Your task to perform on an android device: Open settings on Google Maps Image 0: 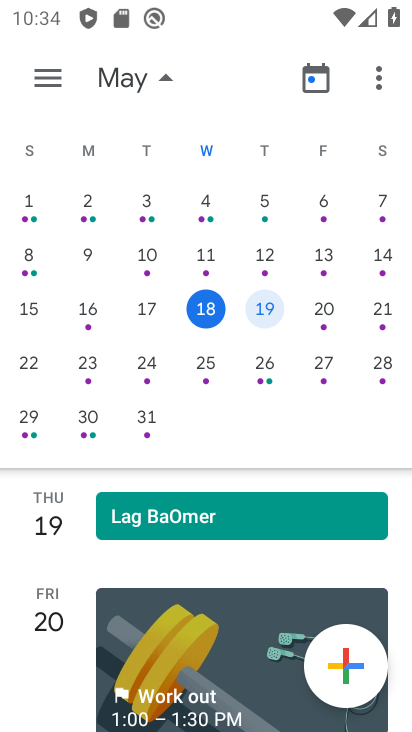
Step 0: press home button
Your task to perform on an android device: Open settings on Google Maps Image 1: 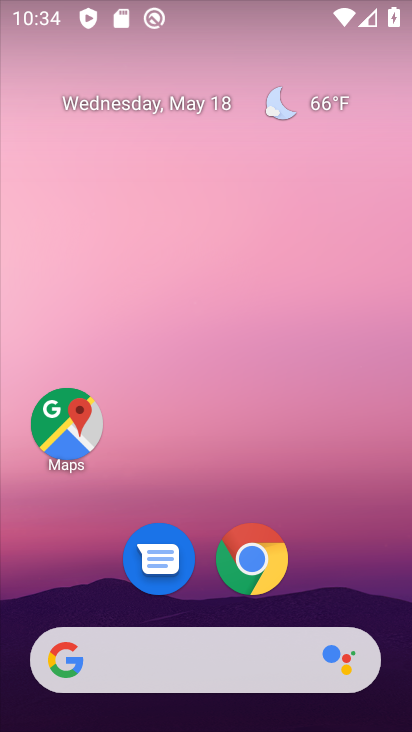
Step 1: click (55, 425)
Your task to perform on an android device: Open settings on Google Maps Image 2: 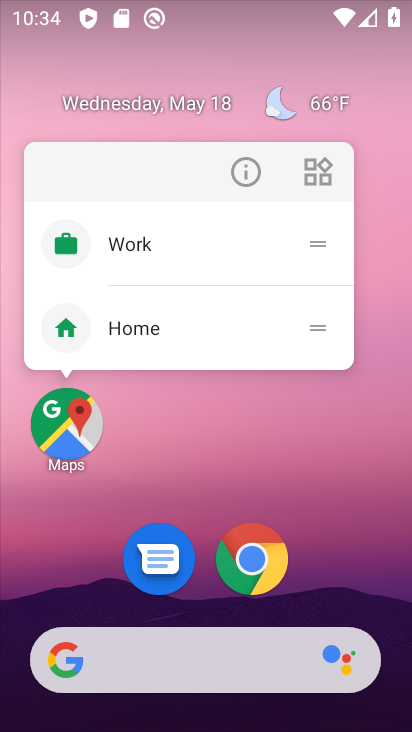
Step 2: click (68, 426)
Your task to perform on an android device: Open settings on Google Maps Image 3: 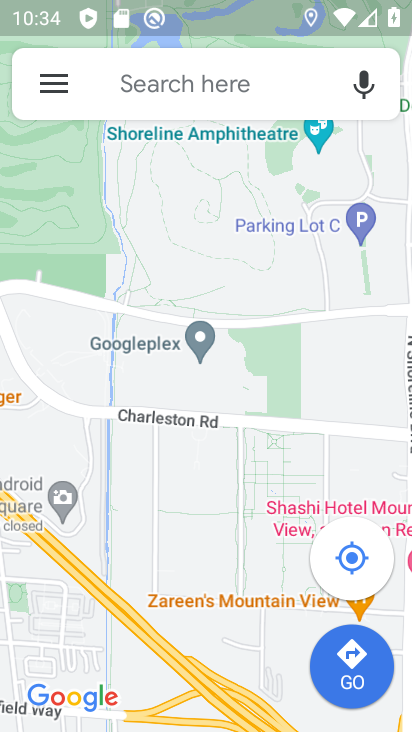
Step 3: click (54, 84)
Your task to perform on an android device: Open settings on Google Maps Image 4: 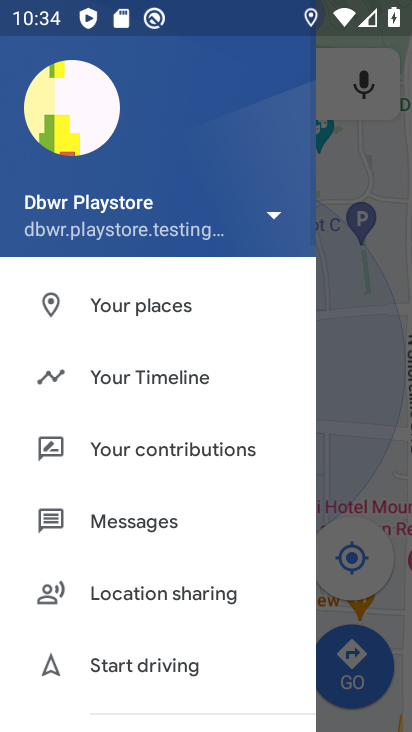
Step 4: drag from (141, 617) to (175, 275)
Your task to perform on an android device: Open settings on Google Maps Image 5: 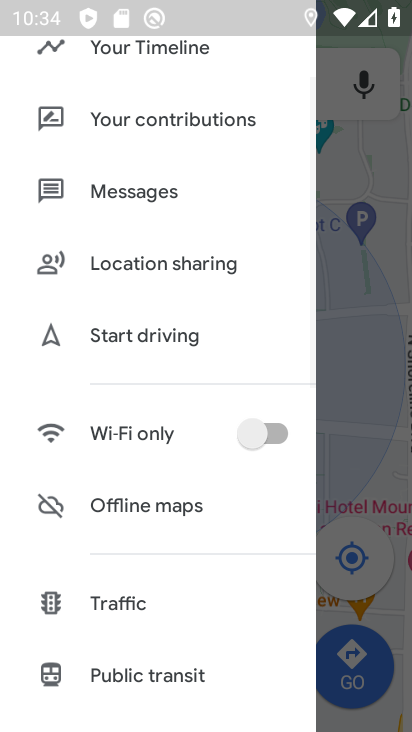
Step 5: drag from (108, 645) to (173, 277)
Your task to perform on an android device: Open settings on Google Maps Image 6: 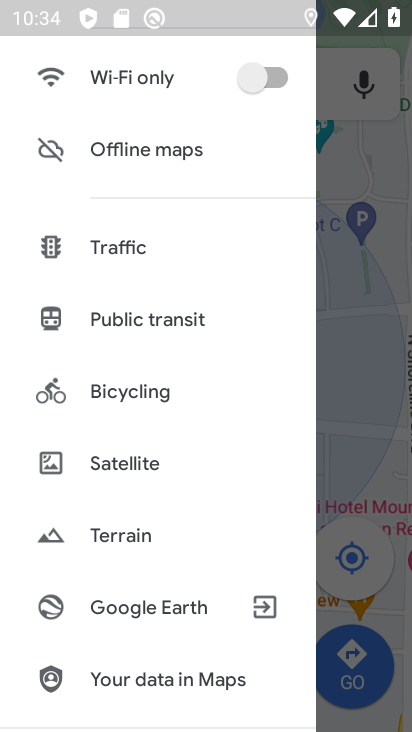
Step 6: drag from (115, 643) to (159, 175)
Your task to perform on an android device: Open settings on Google Maps Image 7: 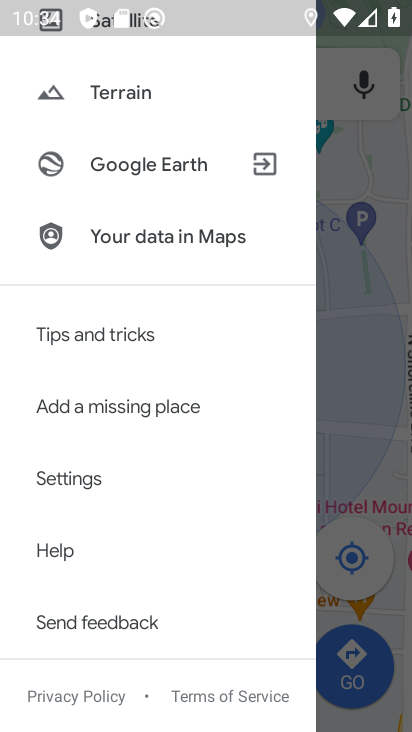
Step 7: click (62, 480)
Your task to perform on an android device: Open settings on Google Maps Image 8: 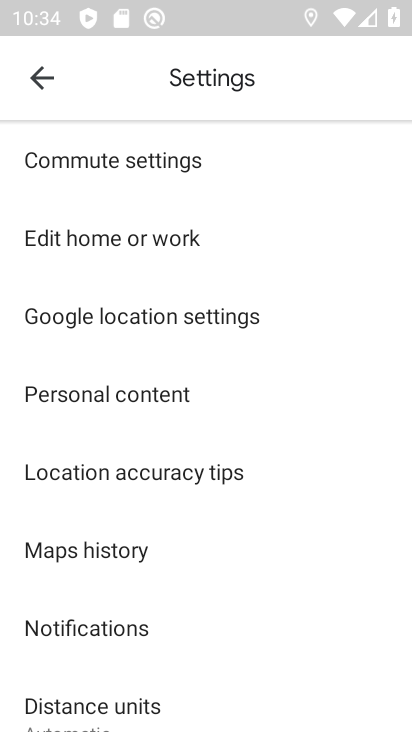
Step 8: task complete